Your task to perform on an android device: add a contact Image 0: 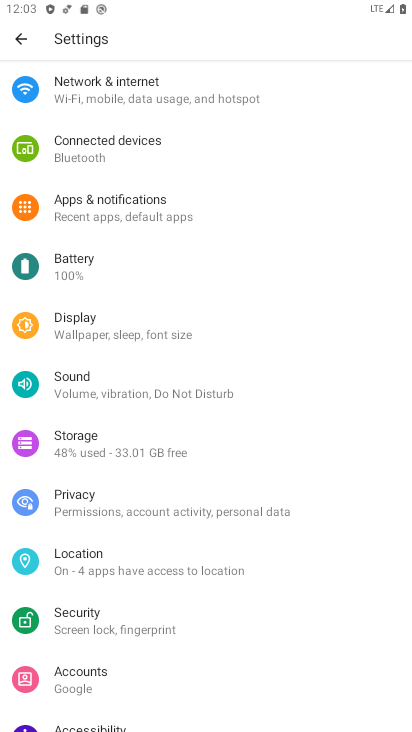
Step 0: press home button
Your task to perform on an android device: add a contact Image 1: 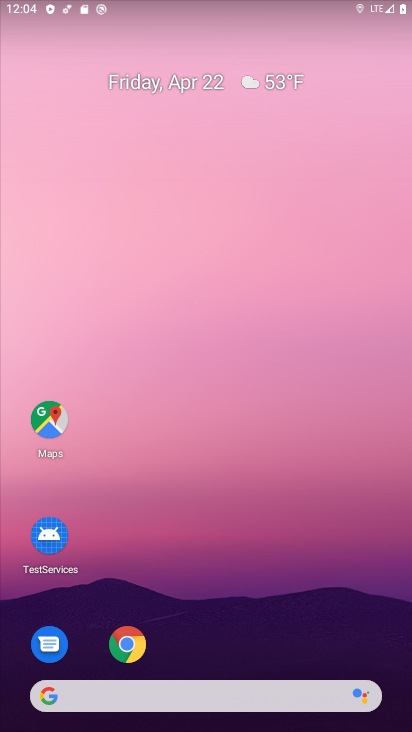
Step 1: drag from (255, 617) to (252, 0)
Your task to perform on an android device: add a contact Image 2: 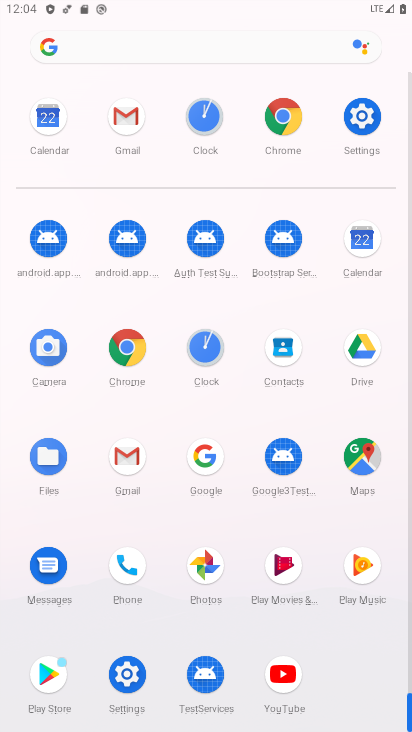
Step 2: click (284, 358)
Your task to perform on an android device: add a contact Image 3: 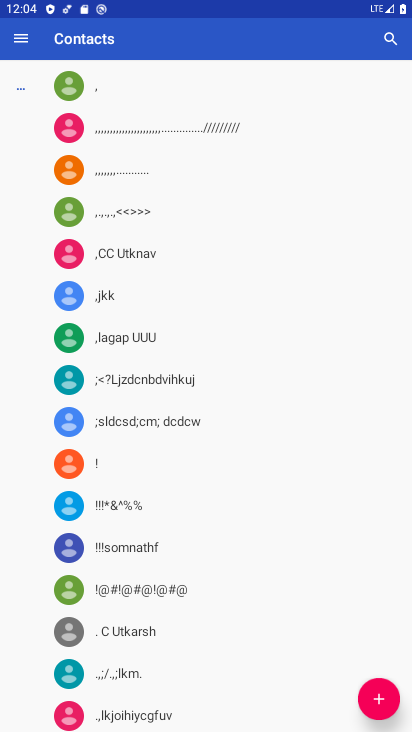
Step 3: click (358, 687)
Your task to perform on an android device: add a contact Image 4: 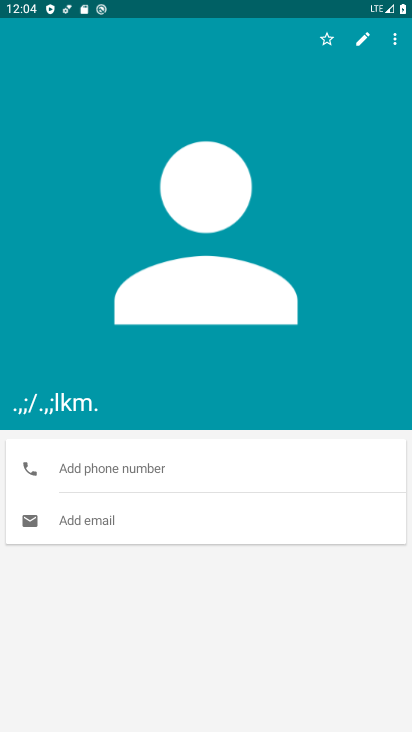
Step 4: press back button
Your task to perform on an android device: add a contact Image 5: 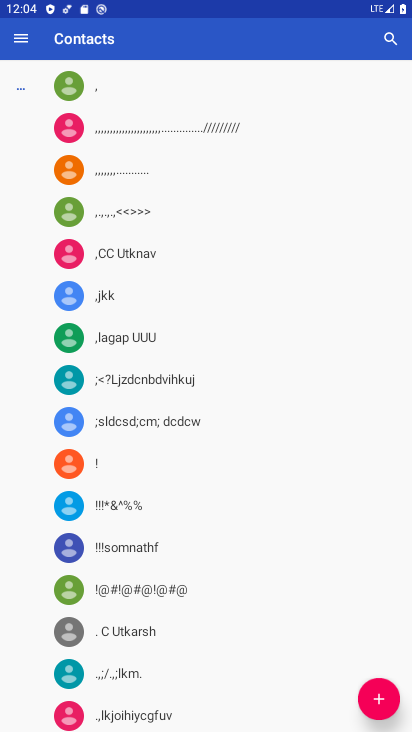
Step 5: click (377, 699)
Your task to perform on an android device: add a contact Image 6: 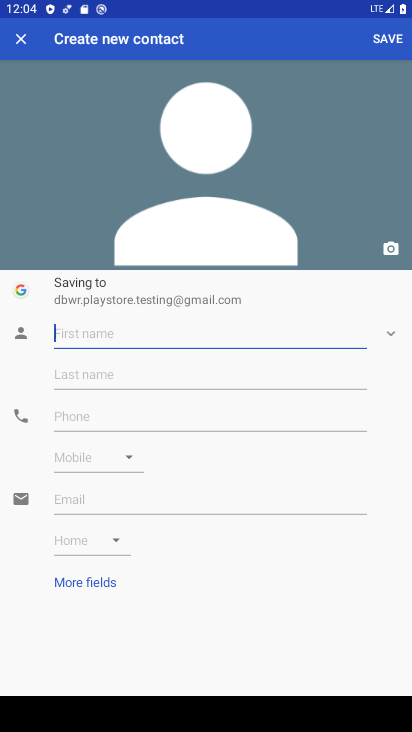
Step 6: click (190, 329)
Your task to perform on an android device: add a contact Image 7: 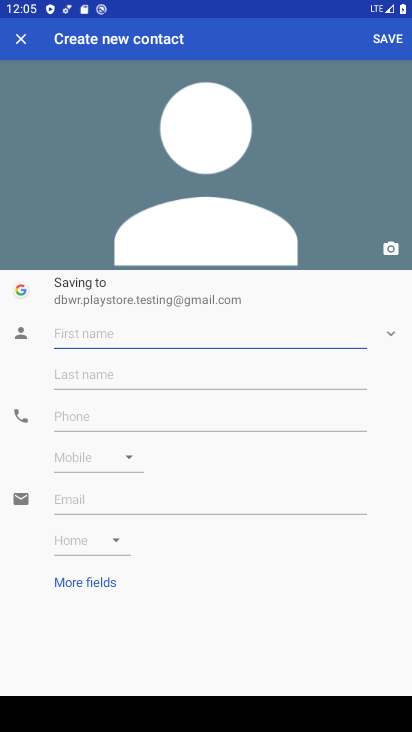
Step 7: type "hyn"
Your task to perform on an android device: add a contact Image 8: 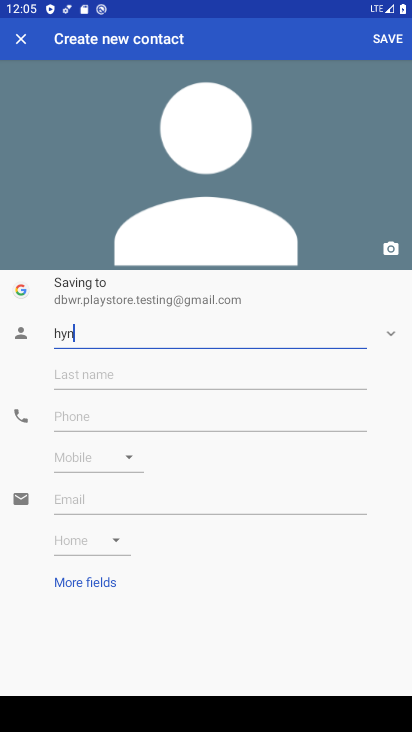
Step 8: type ""
Your task to perform on an android device: add a contact Image 9: 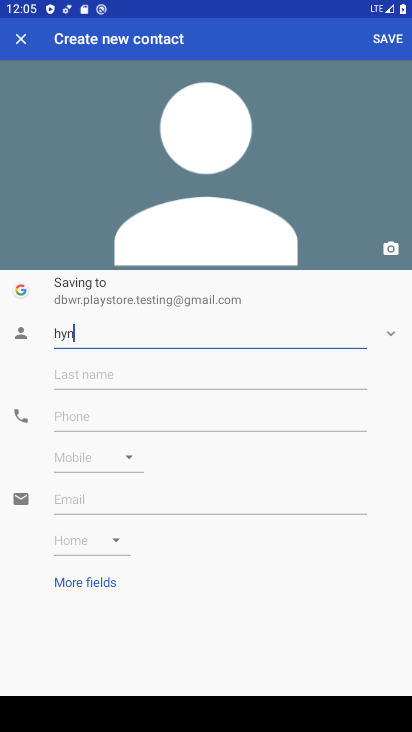
Step 9: click (386, 40)
Your task to perform on an android device: add a contact Image 10: 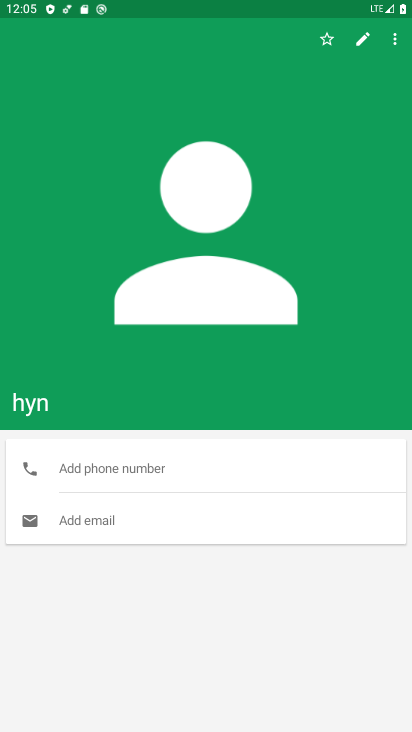
Step 10: task complete